Your task to perform on an android device: clear history in the chrome app Image 0: 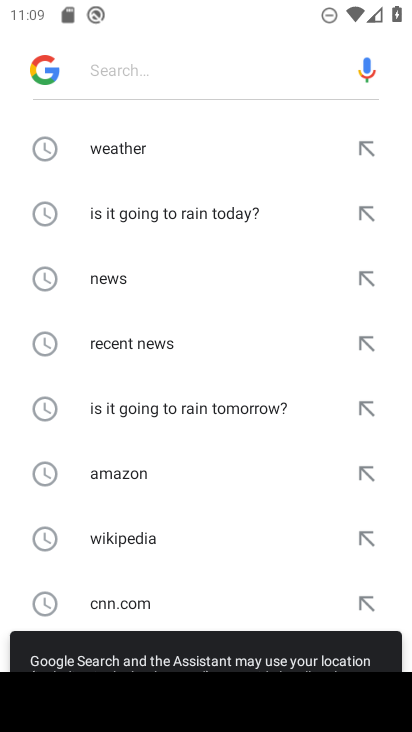
Step 0: press home button
Your task to perform on an android device: clear history in the chrome app Image 1: 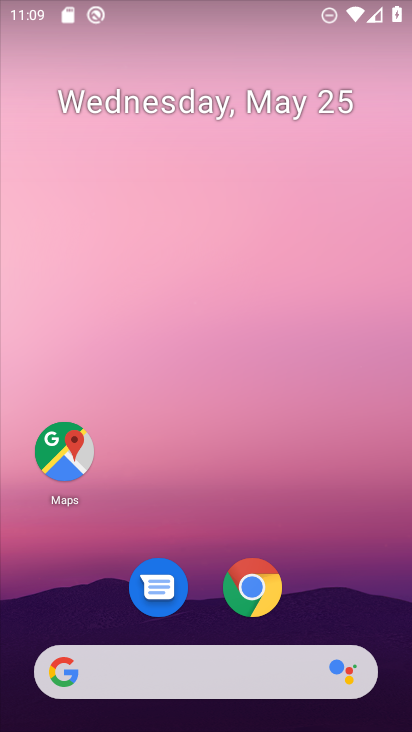
Step 1: drag from (338, 566) to (233, 3)
Your task to perform on an android device: clear history in the chrome app Image 2: 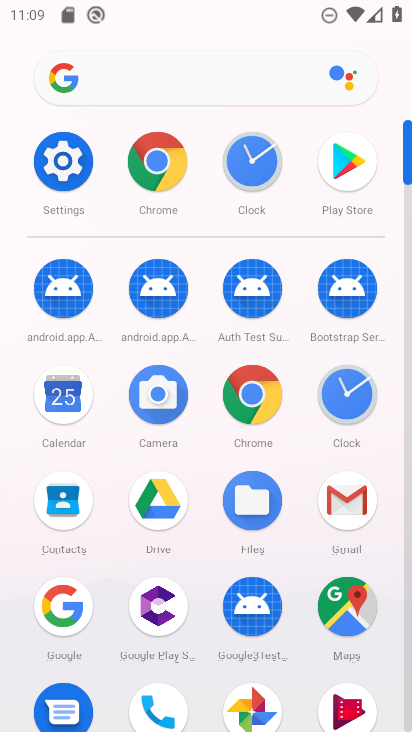
Step 2: click (149, 154)
Your task to perform on an android device: clear history in the chrome app Image 3: 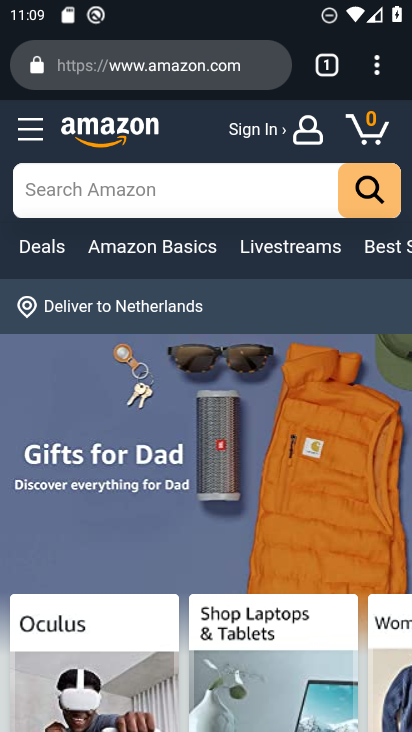
Step 3: drag from (375, 70) to (138, 225)
Your task to perform on an android device: clear history in the chrome app Image 4: 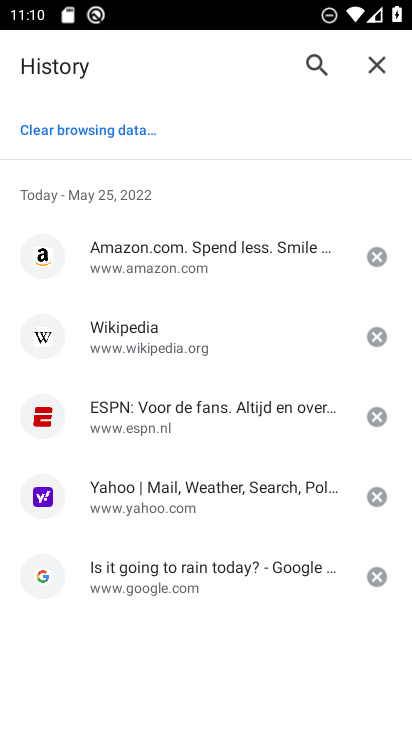
Step 4: click (114, 126)
Your task to perform on an android device: clear history in the chrome app Image 5: 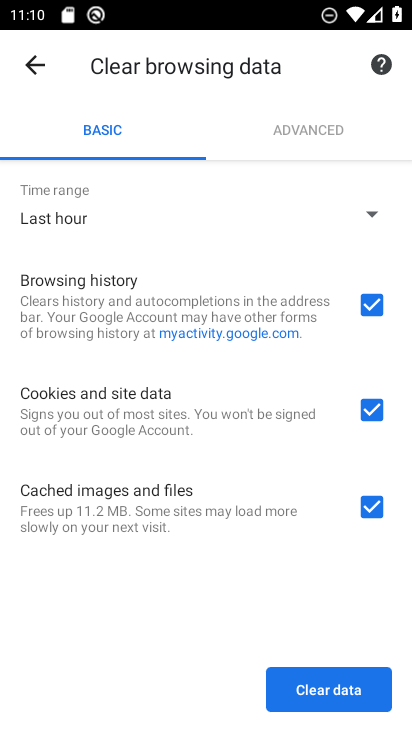
Step 5: click (325, 694)
Your task to perform on an android device: clear history in the chrome app Image 6: 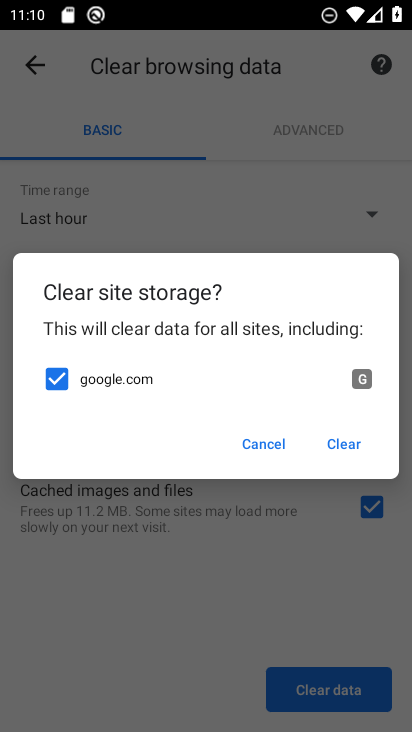
Step 6: click (340, 438)
Your task to perform on an android device: clear history in the chrome app Image 7: 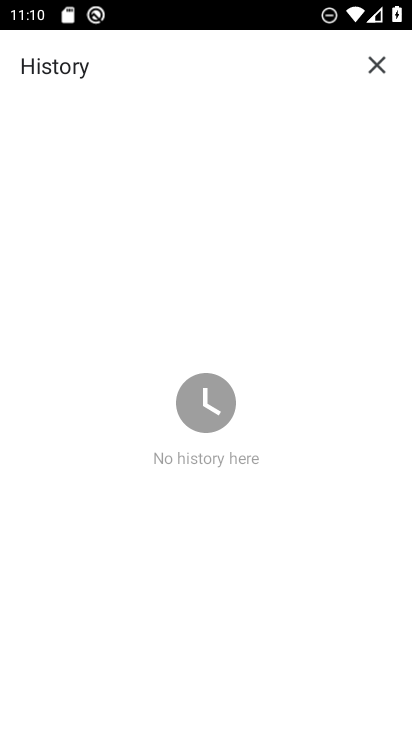
Step 7: task complete